Your task to perform on an android device: open sync settings in chrome Image 0: 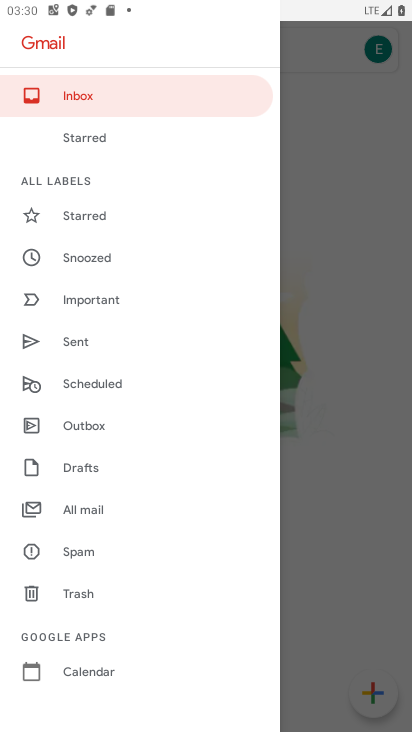
Step 0: press home button
Your task to perform on an android device: open sync settings in chrome Image 1: 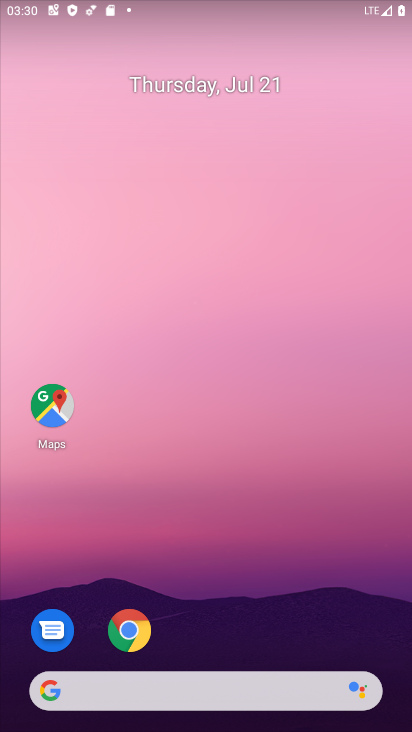
Step 1: click (134, 622)
Your task to perform on an android device: open sync settings in chrome Image 2: 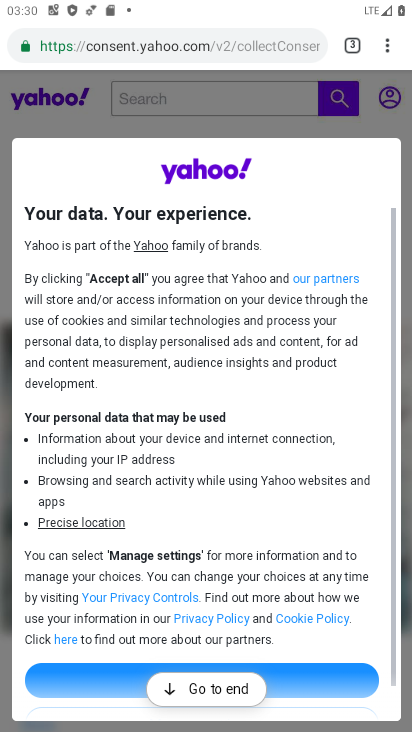
Step 2: click (398, 47)
Your task to perform on an android device: open sync settings in chrome Image 3: 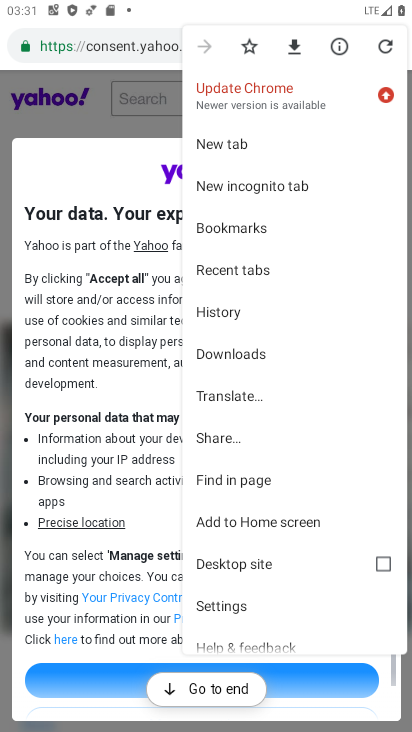
Step 3: click (190, 597)
Your task to perform on an android device: open sync settings in chrome Image 4: 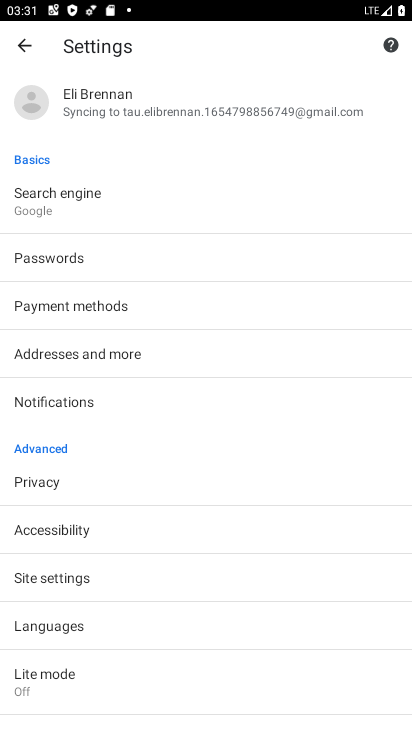
Step 4: click (126, 90)
Your task to perform on an android device: open sync settings in chrome Image 5: 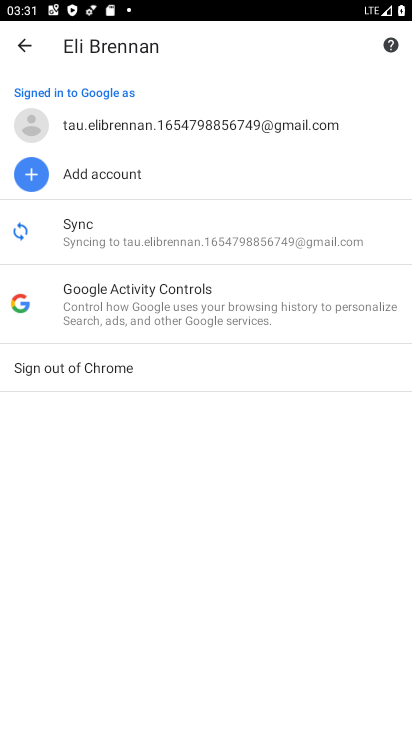
Step 5: click (123, 219)
Your task to perform on an android device: open sync settings in chrome Image 6: 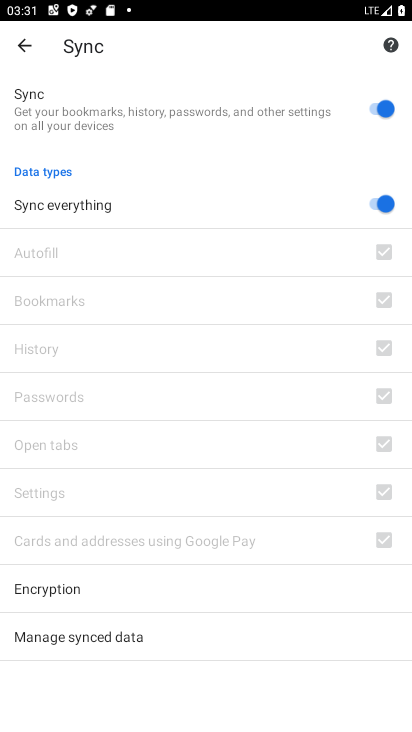
Step 6: click (123, 219)
Your task to perform on an android device: open sync settings in chrome Image 7: 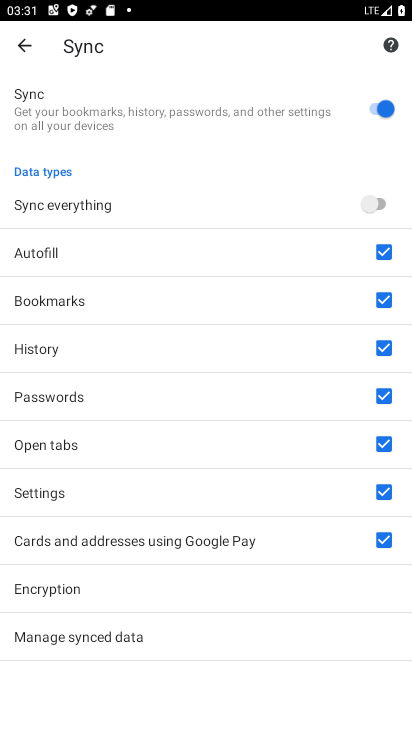
Step 7: task complete